Your task to perform on an android device: Turn off the flashlight Image 0: 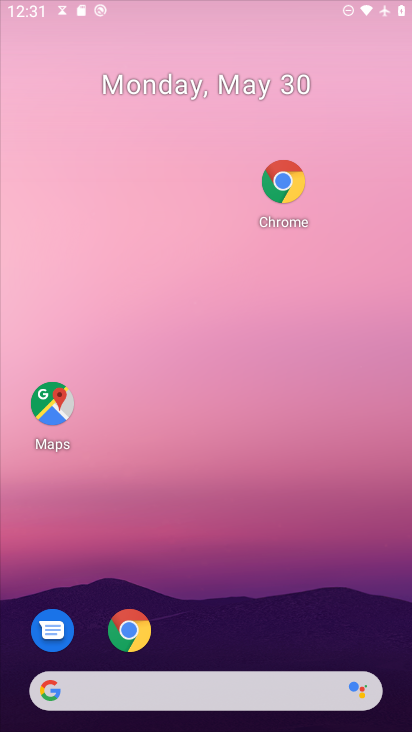
Step 0: drag from (245, 701) to (181, 223)
Your task to perform on an android device: Turn off the flashlight Image 1: 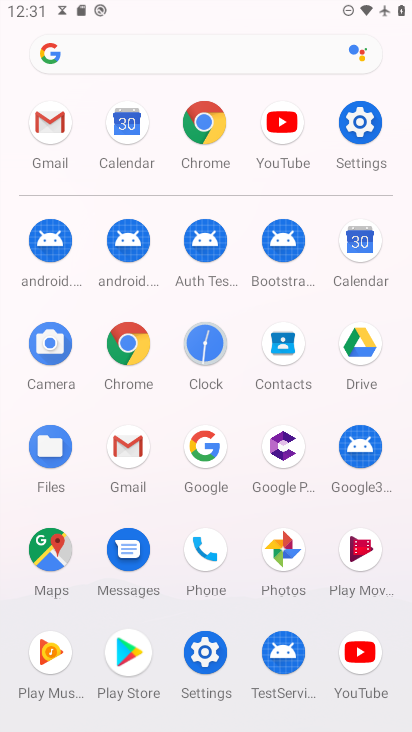
Step 1: task complete